Your task to perform on an android device: Open Google Chrome and click the shortcut for Amazon.com Image 0: 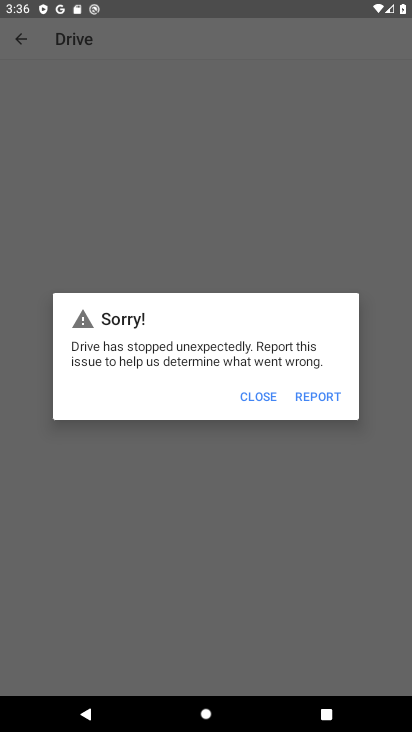
Step 0: press home button
Your task to perform on an android device: Open Google Chrome and click the shortcut for Amazon.com Image 1: 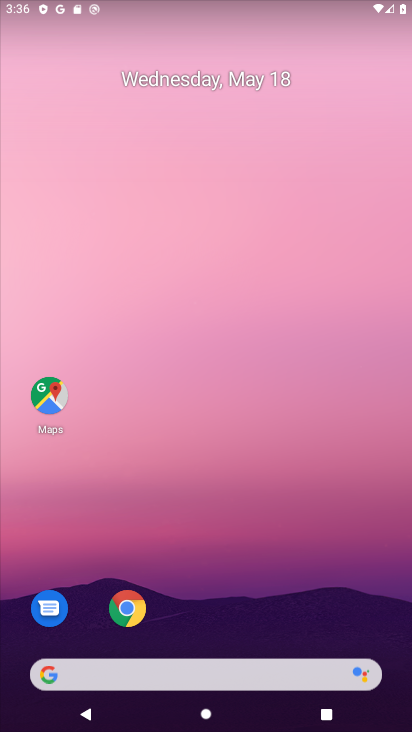
Step 1: drag from (288, 550) to (306, 226)
Your task to perform on an android device: Open Google Chrome and click the shortcut for Amazon.com Image 2: 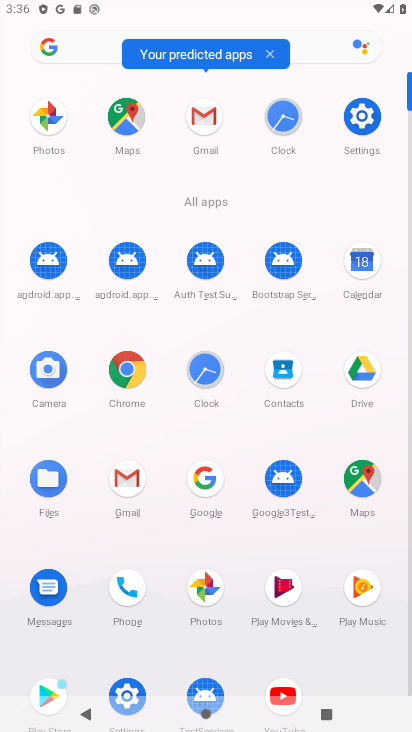
Step 2: click (128, 385)
Your task to perform on an android device: Open Google Chrome and click the shortcut for Amazon.com Image 3: 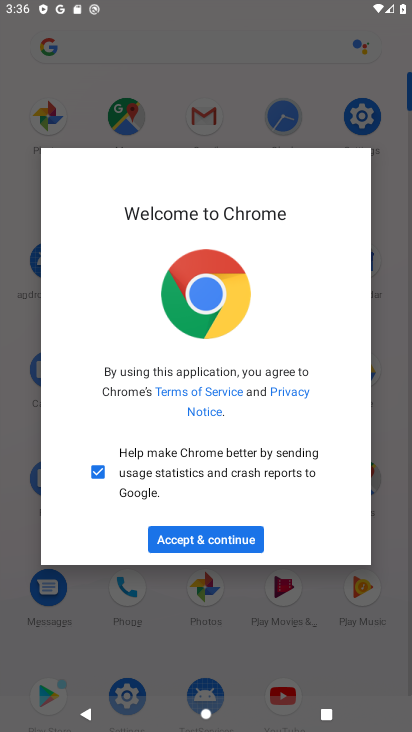
Step 3: click (213, 539)
Your task to perform on an android device: Open Google Chrome and click the shortcut for Amazon.com Image 4: 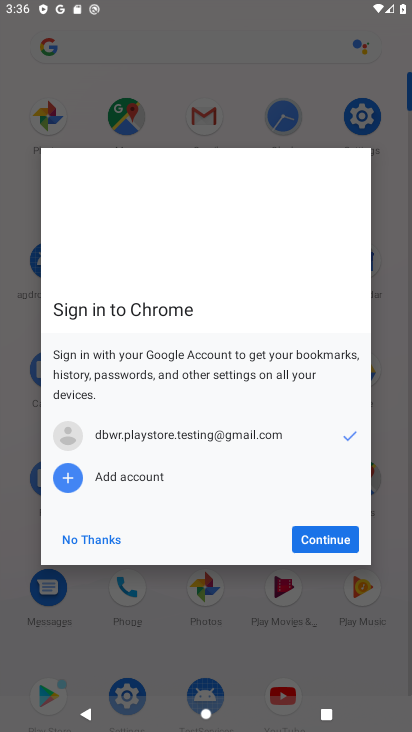
Step 4: click (309, 541)
Your task to perform on an android device: Open Google Chrome and click the shortcut for Amazon.com Image 5: 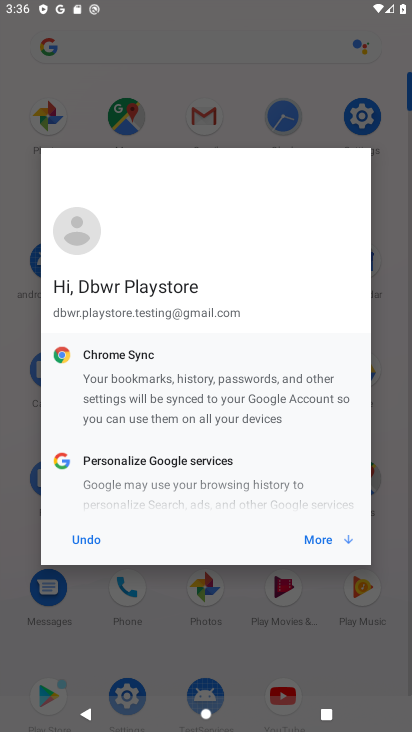
Step 5: click (309, 544)
Your task to perform on an android device: Open Google Chrome and click the shortcut for Amazon.com Image 6: 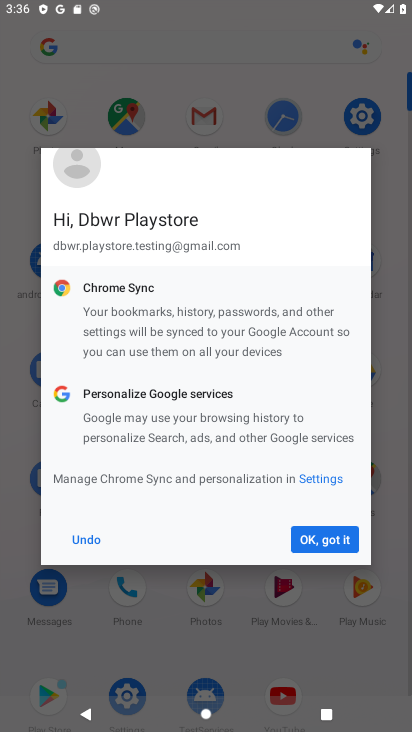
Step 6: click (309, 544)
Your task to perform on an android device: Open Google Chrome and click the shortcut for Amazon.com Image 7: 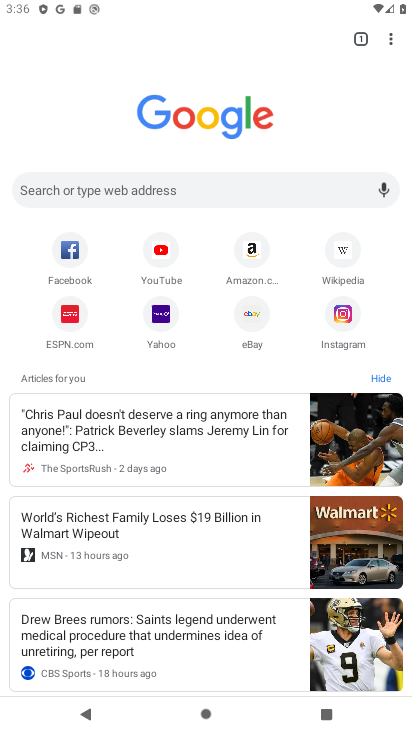
Step 7: click (254, 256)
Your task to perform on an android device: Open Google Chrome and click the shortcut for Amazon.com Image 8: 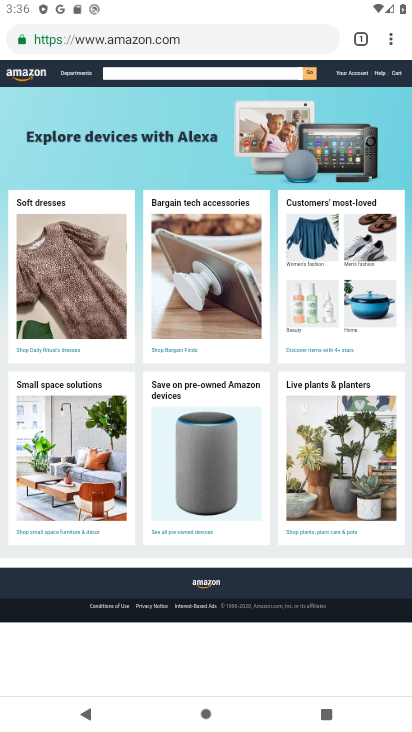
Step 8: task complete